Your task to perform on an android device: change timer sound Image 0: 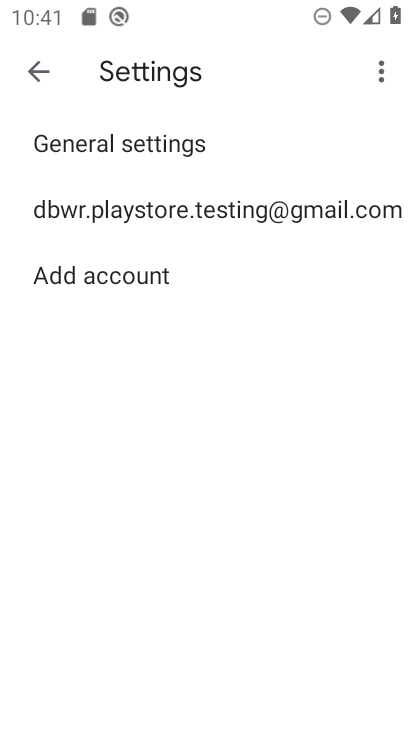
Step 0: press home button
Your task to perform on an android device: change timer sound Image 1: 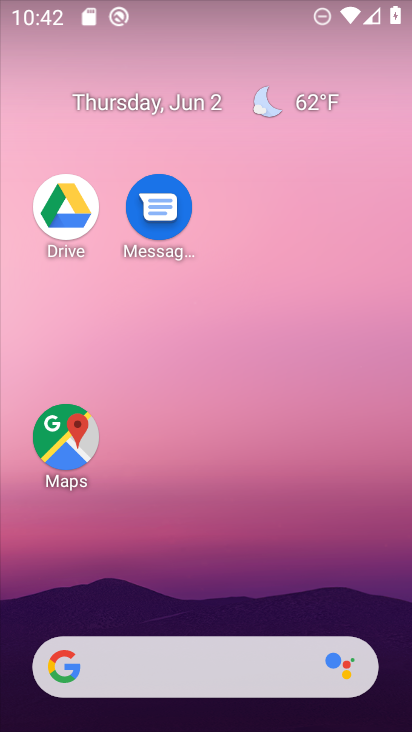
Step 1: drag from (188, 639) to (156, 4)
Your task to perform on an android device: change timer sound Image 2: 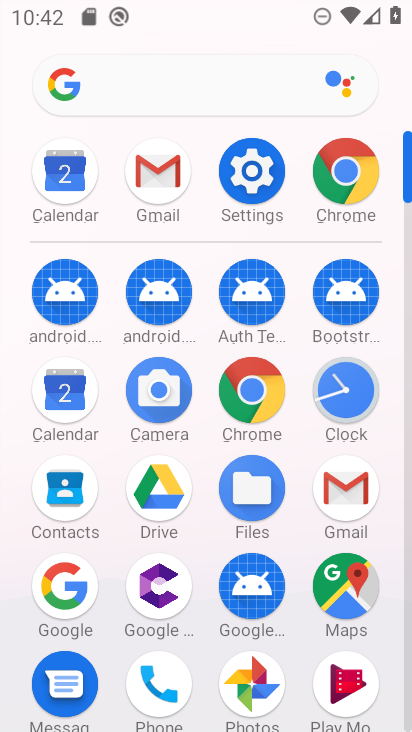
Step 2: click (348, 408)
Your task to perform on an android device: change timer sound Image 3: 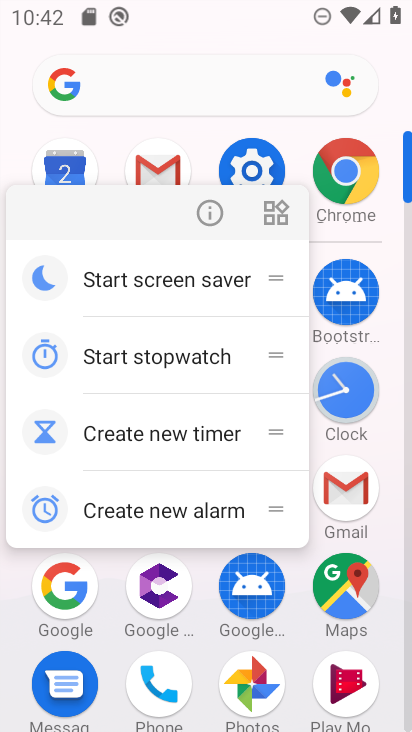
Step 3: click (352, 388)
Your task to perform on an android device: change timer sound Image 4: 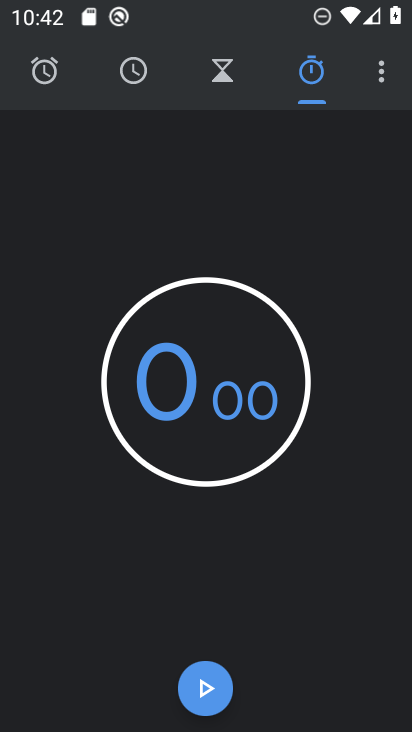
Step 4: click (383, 79)
Your task to perform on an android device: change timer sound Image 5: 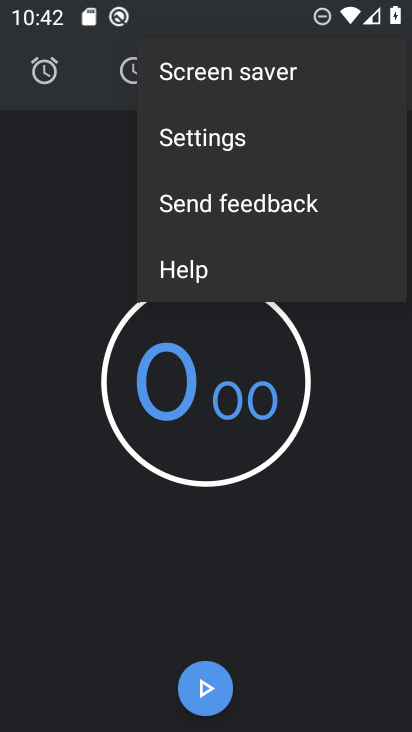
Step 5: click (204, 148)
Your task to perform on an android device: change timer sound Image 6: 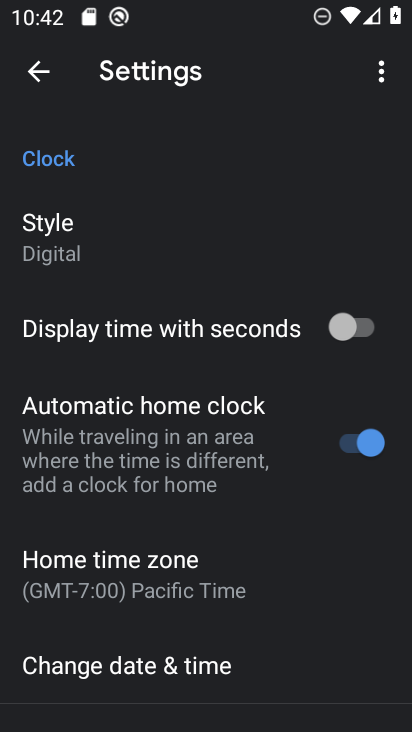
Step 6: drag from (233, 620) to (191, 164)
Your task to perform on an android device: change timer sound Image 7: 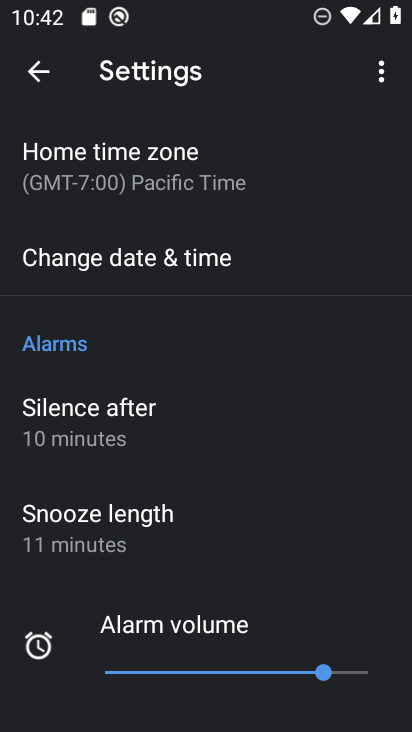
Step 7: drag from (166, 563) to (112, 40)
Your task to perform on an android device: change timer sound Image 8: 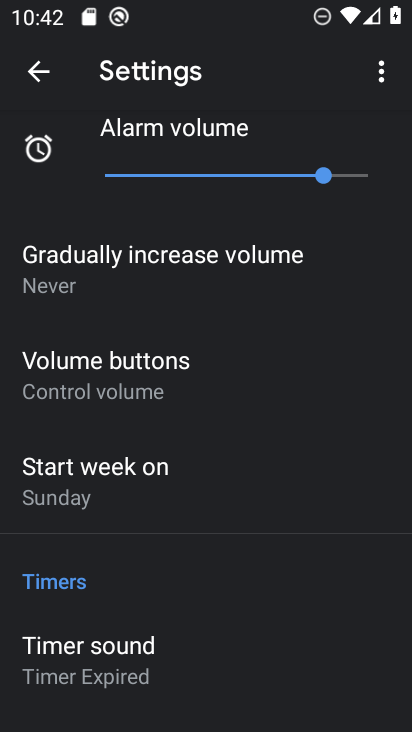
Step 8: click (135, 661)
Your task to perform on an android device: change timer sound Image 9: 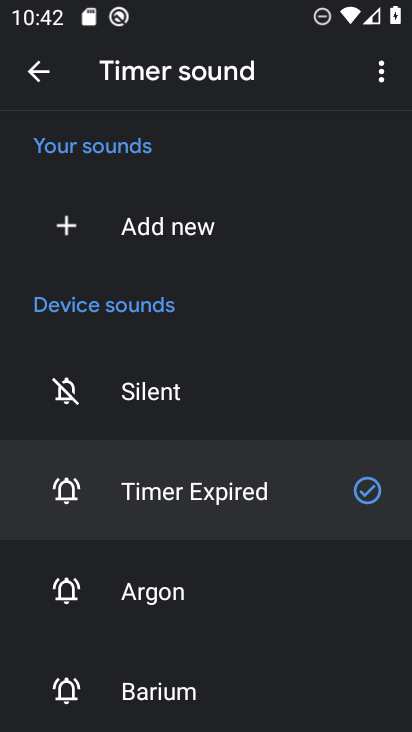
Step 9: click (231, 612)
Your task to perform on an android device: change timer sound Image 10: 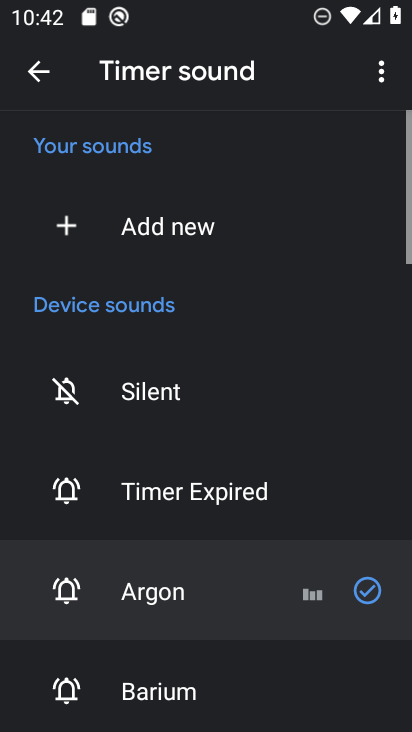
Step 10: task complete